Your task to perform on an android device: turn pop-ups off in chrome Image 0: 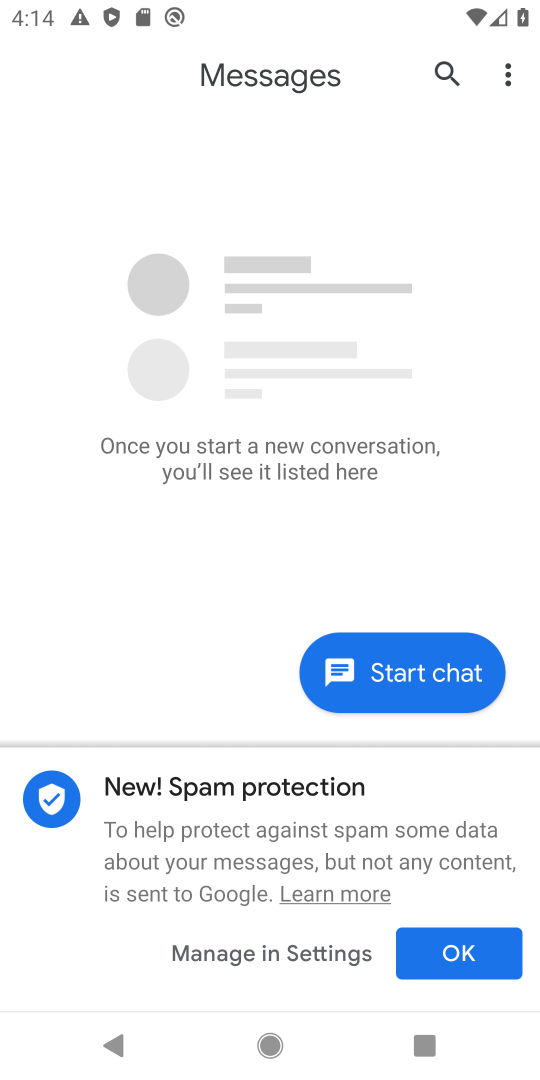
Step 0: press home button
Your task to perform on an android device: turn pop-ups off in chrome Image 1: 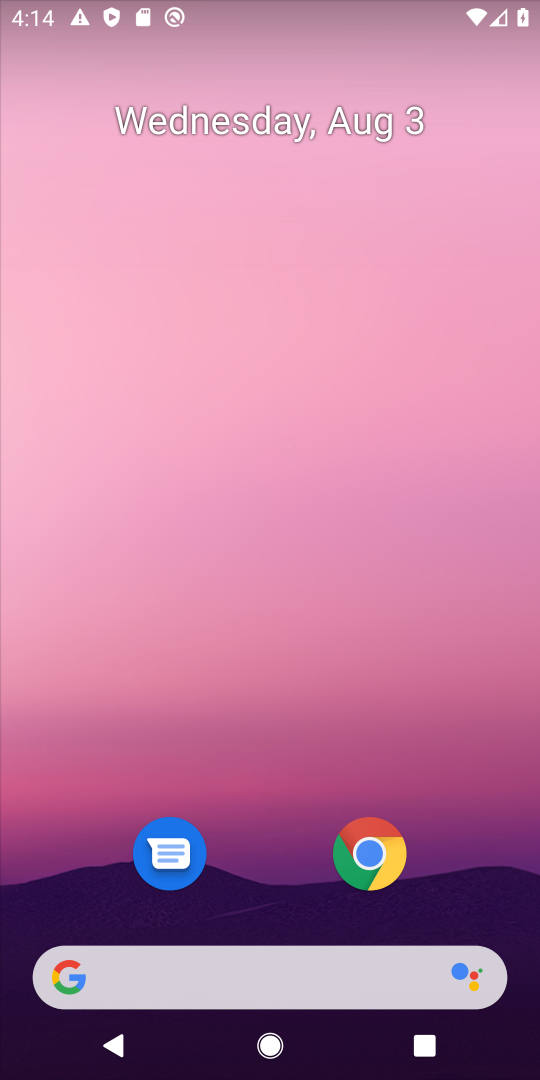
Step 1: click (373, 855)
Your task to perform on an android device: turn pop-ups off in chrome Image 2: 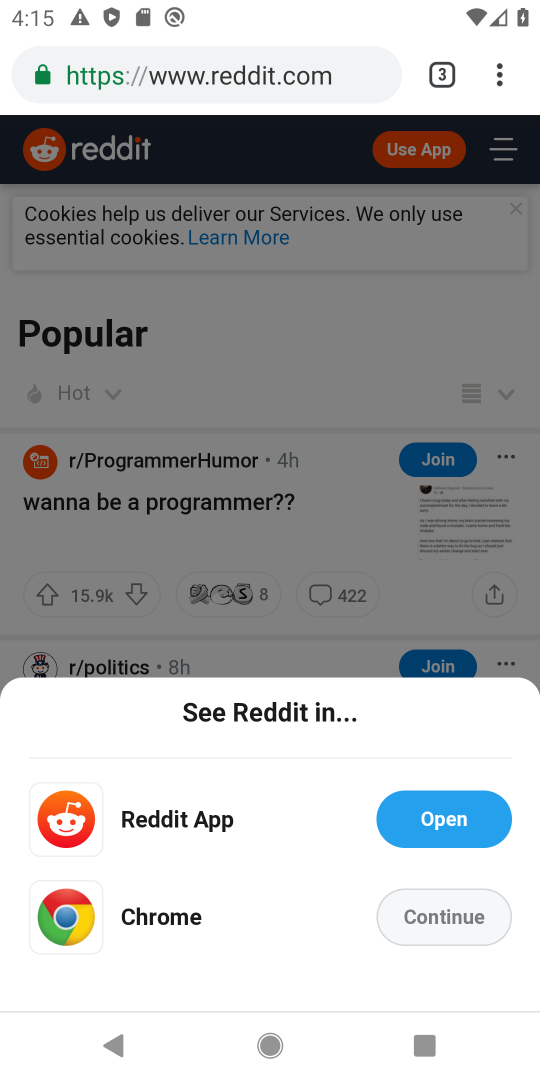
Step 2: click (500, 83)
Your task to perform on an android device: turn pop-ups off in chrome Image 3: 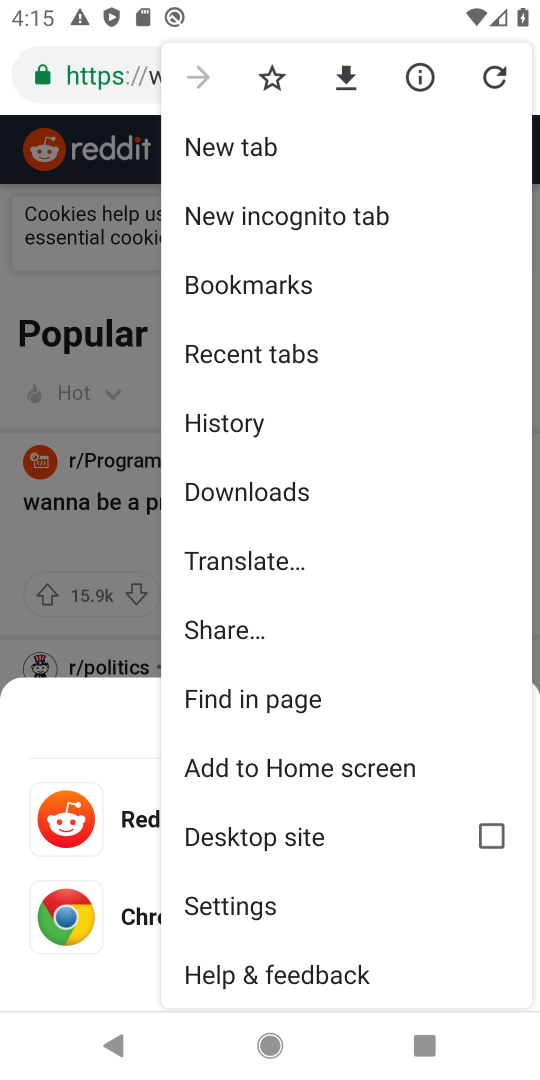
Step 3: click (251, 911)
Your task to perform on an android device: turn pop-ups off in chrome Image 4: 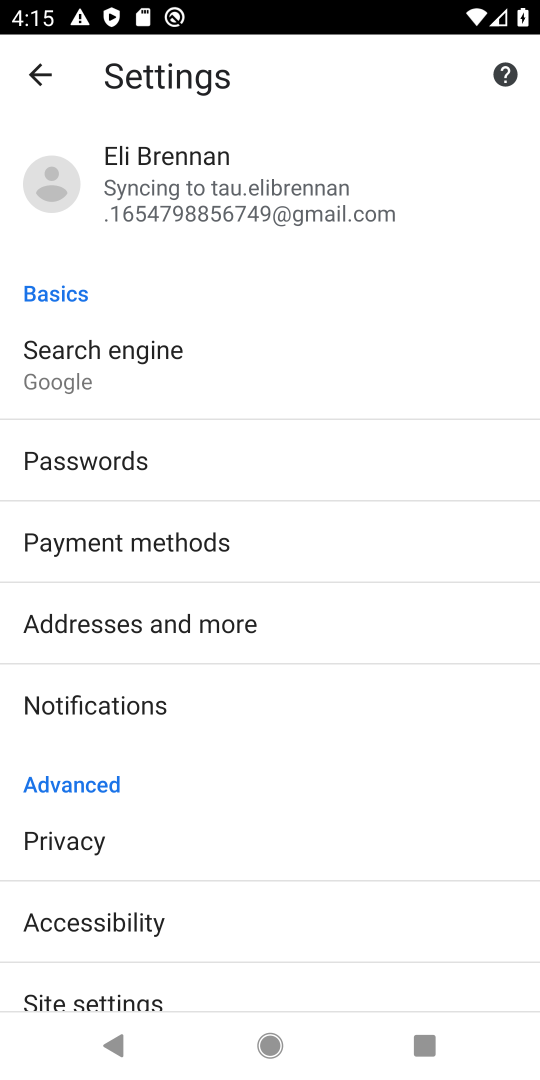
Step 4: drag from (160, 940) to (167, 332)
Your task to perform on an android device: turn pop-ups off in chrome Image 5: 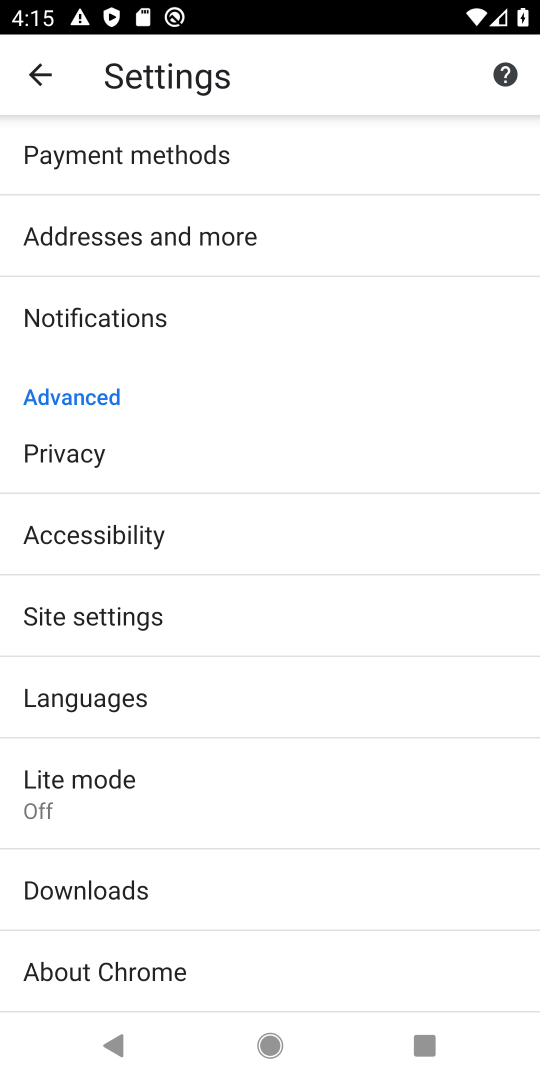
Step 5: click (82, 619)
Your task to perform on an android device: turn pop-ups off in chrome Image 6: 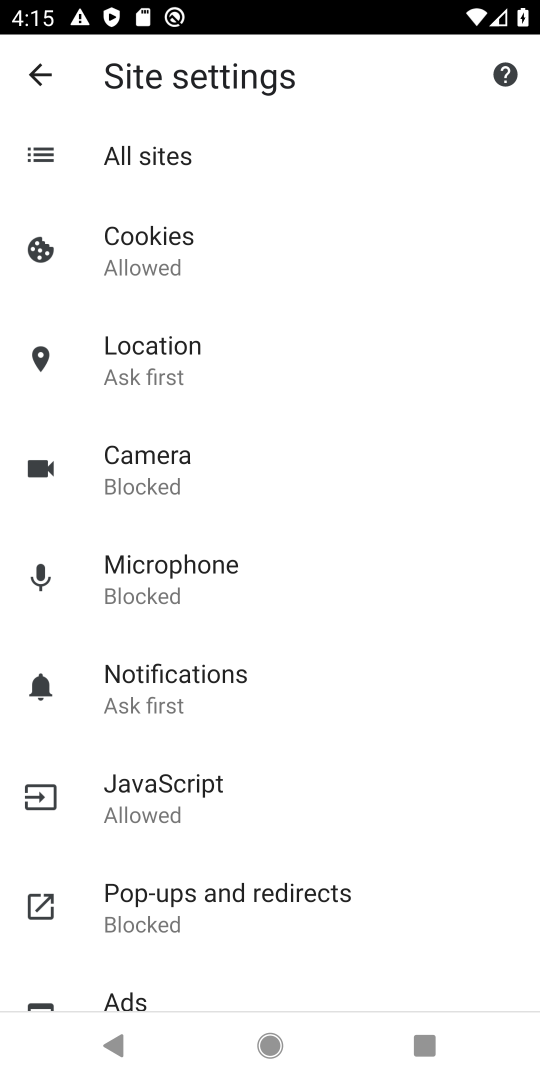
Step 6: click (188, 897)
Your task to perform on an android device: turn pop-ups off in chrome Image 7: 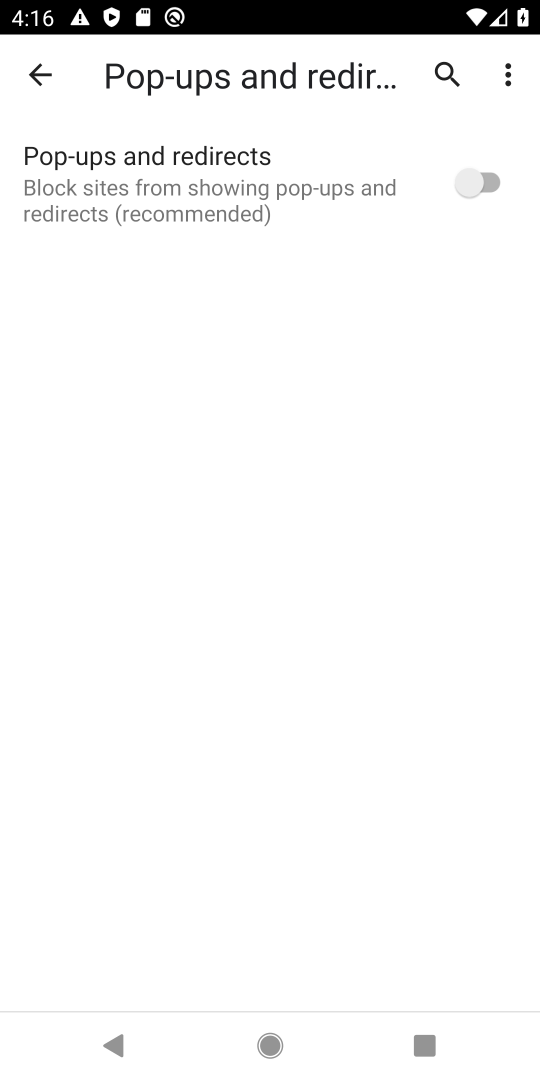
Step 7: task complete